Your task to perform on an android device: Open Yahoo.com Image 0: 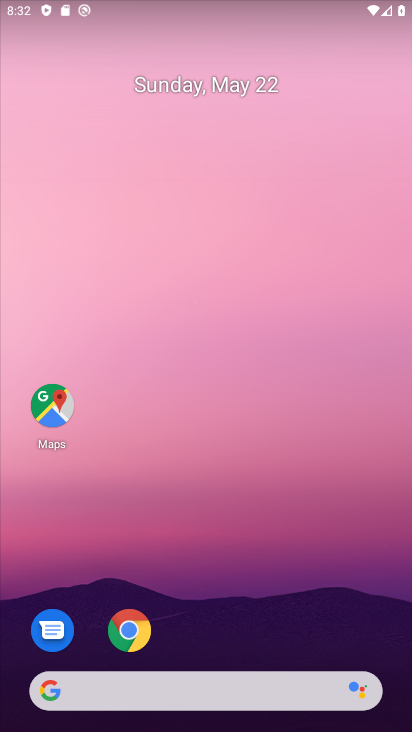
Step 0: click (224, 686)
Your task to perform on an android device: Open Yahoo.com Image 1: 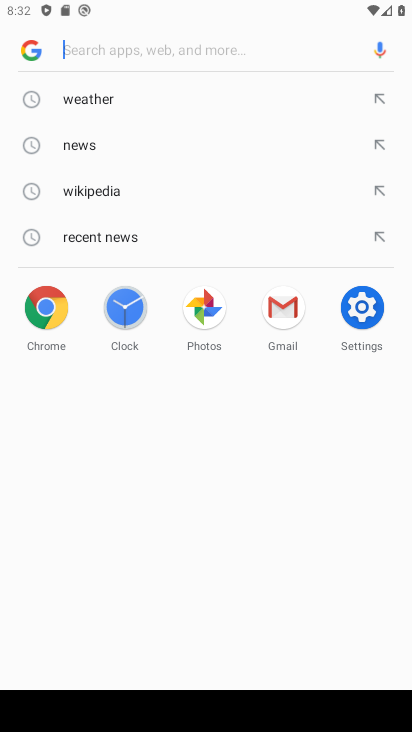
Step 1: type "yahoo.com"
Your task to perform on an android device: Open Yahoo.com Image 2: 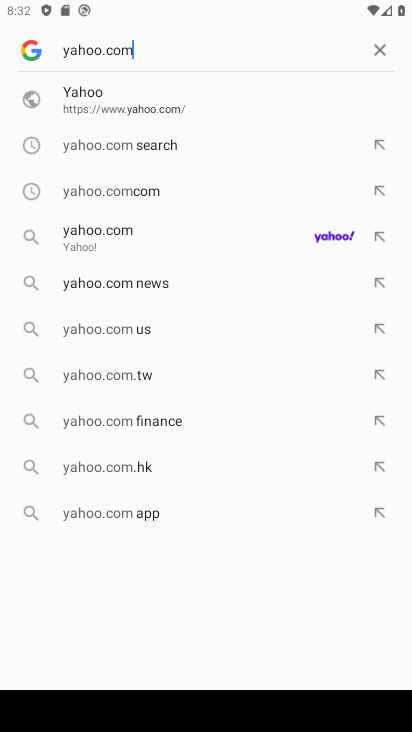
Step 2: click (133, 109)
Your task to perform on an android device: Open Yahoo.com Image 3: 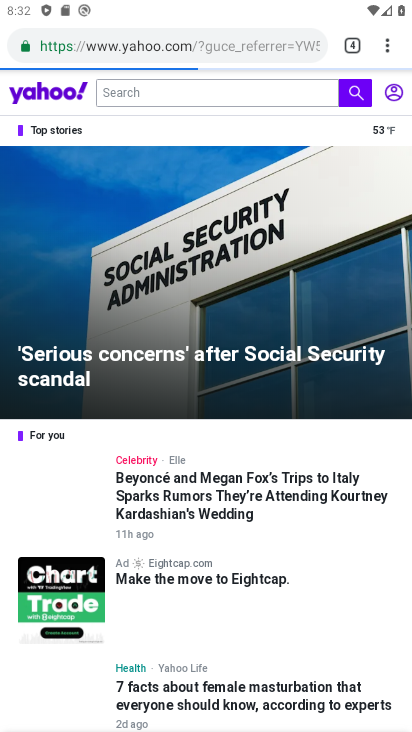
Step 3: task complete